Your task to perform on an android device: Open display settings Image 0: 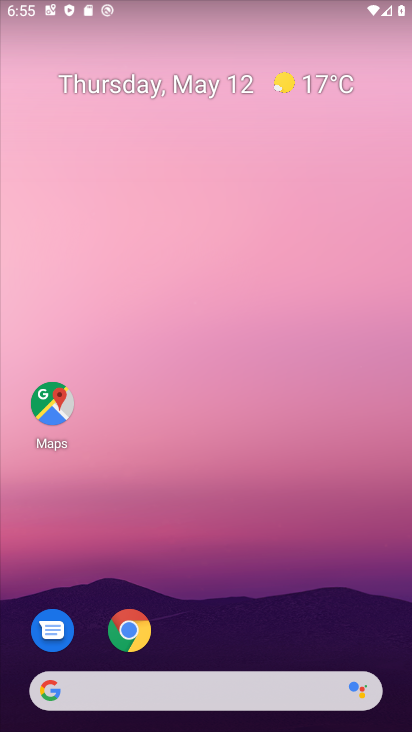
Step 0: drag from (374, 621) to (317, 65)
Your task to perform on an android device: Open display settings Image 1: 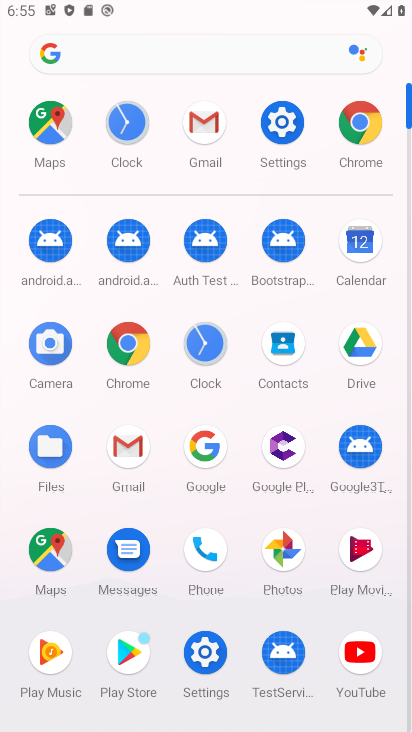
Step 1: click (214, 670)
Your task to perform on an android device: Open display settings Image 2: 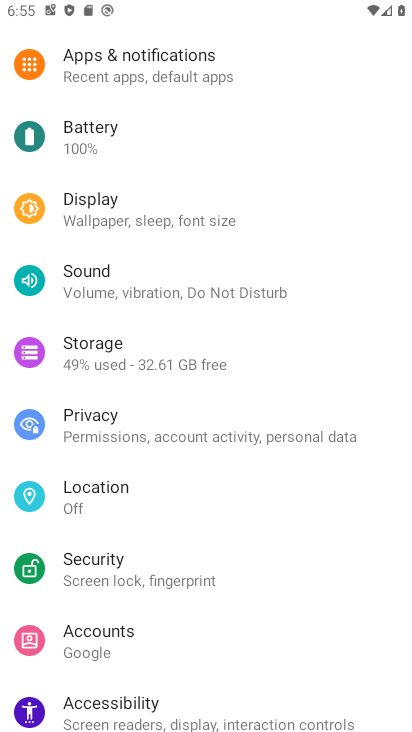
Step 2: click (139, 193)
Your task to perform on an android device: Open display settings Image 3: 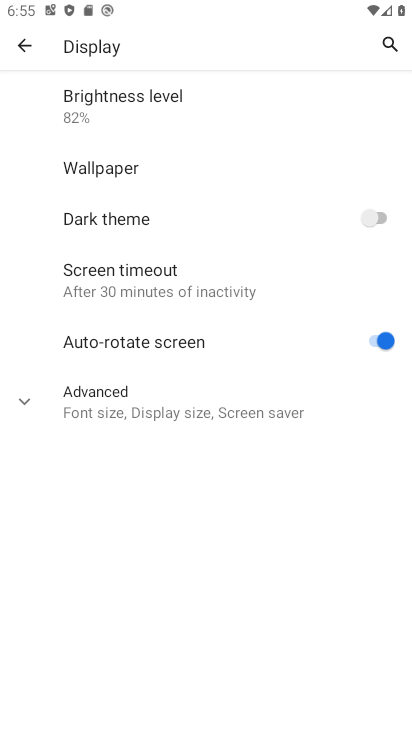
Step 3: task complete